Your task to perform on an android device: read, delete, or share a saved page in the chrome app Image 0: 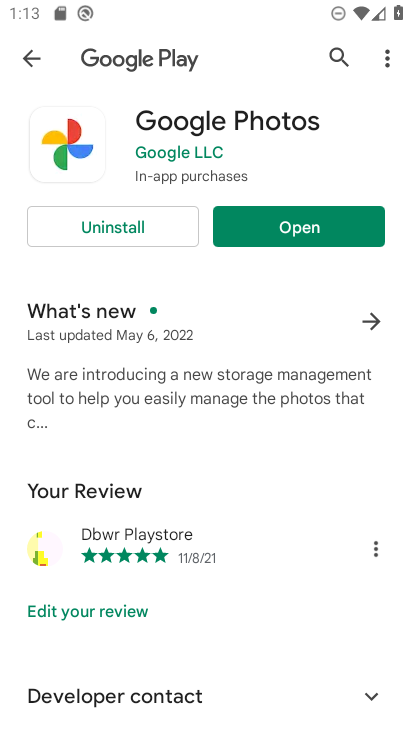
Step 0: press home button
Your task to perform on an android device: read, delete, or share a saved page in the chrome app Image 1: 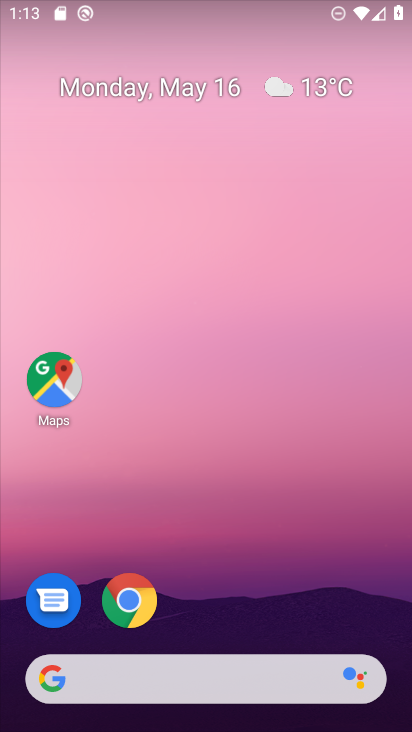
Step 1: click (126, 596)
Your task to perform on an android device: read, delete, or share a saved page in the chrome app Image 2: 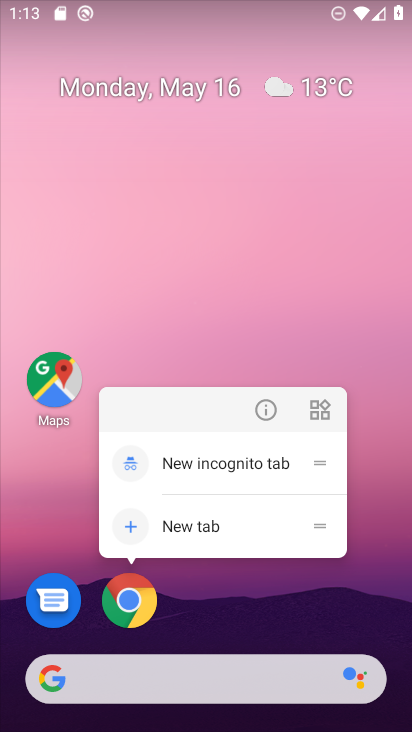
Step 2: click (126, 596)
Your task to perform on an android device: read, delete, or share a saved page in the chrome app Image 3: 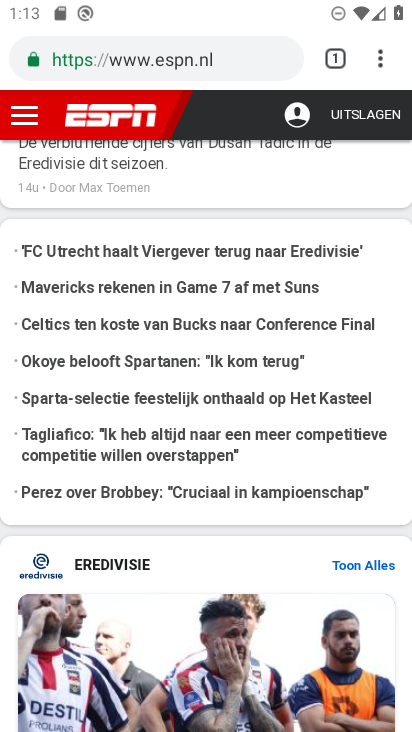
Step 3: click (375, 55)
Your task to perform on an android device: read, delete, or share a saved page in the chrome app Image 4: 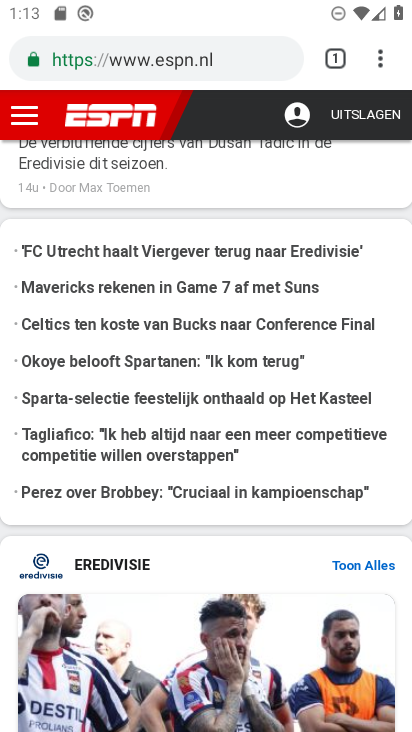
Step 4: click (378, 53)
Your task to perform on an android device: read, delete, or share a saved page in the chrome app Image 5: 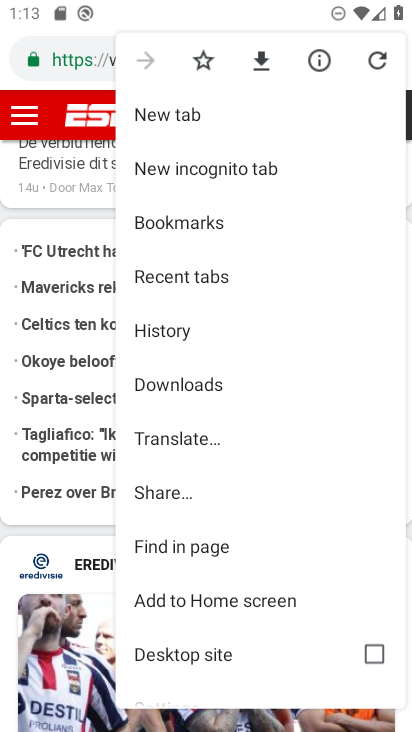
Step 5: click (229, 378)
Your task to perform on an android device: read, delete, or share a saved page in the chrome app Image 6: 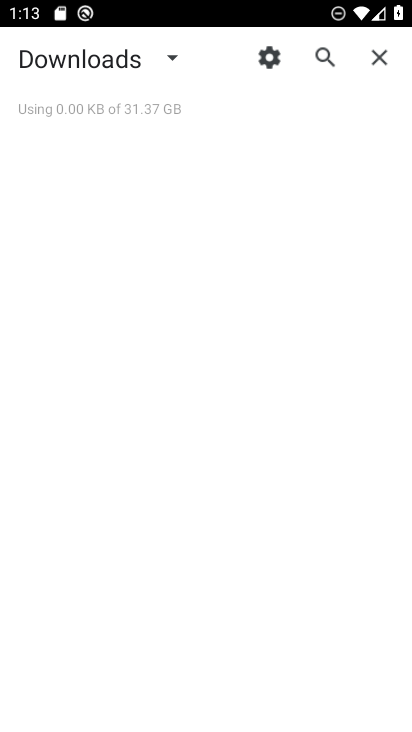
Step 6: task complete